Your task to perform on an android device: Open Google Chrome Image 0: 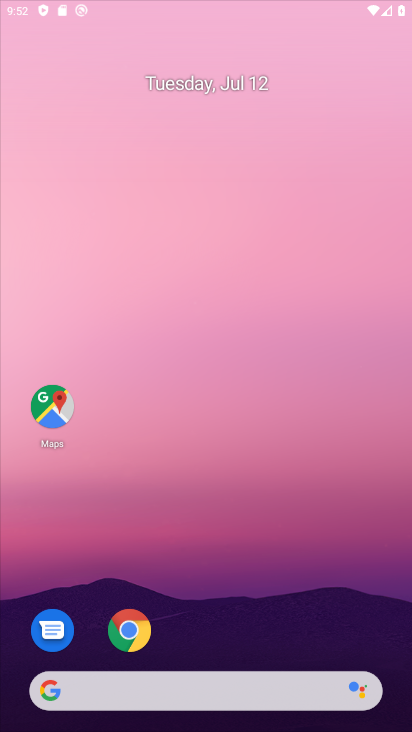
Step 0: click (232, 73)
Your task to perform on an android device: Open Google Chrome Image 1: 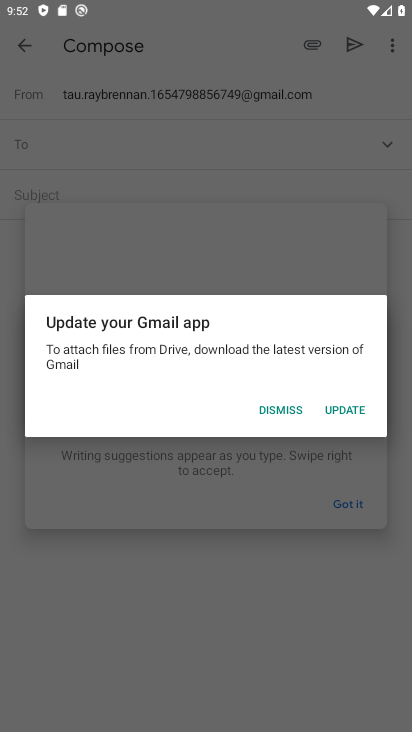
Step 1: press home button
Your task to perform on an android device: Open Google Chrome Image 2: 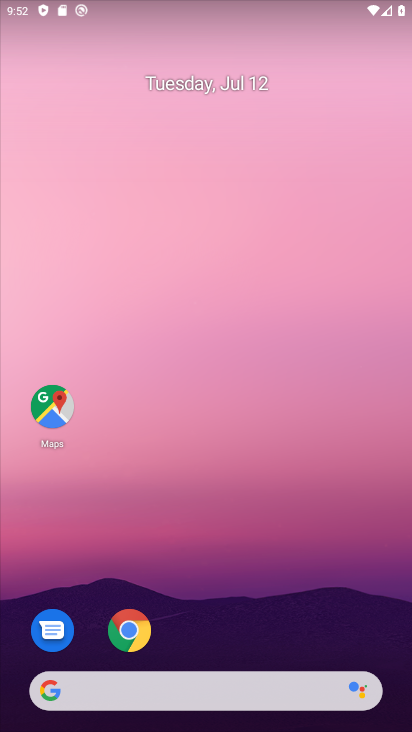
Step 2: click (141, 627)
Your task to perform on an android device: Open Google Chrome Image 3: 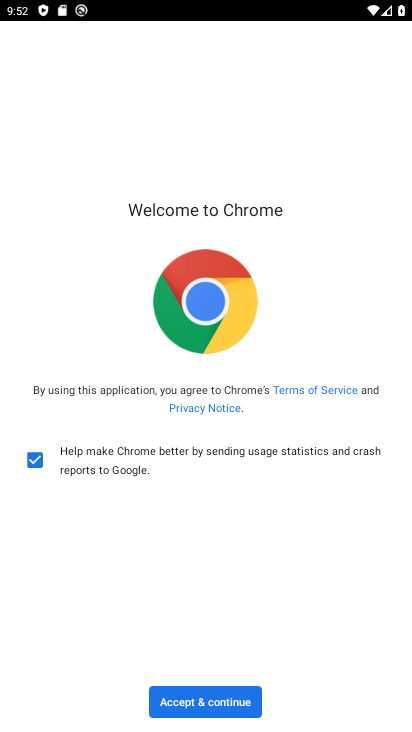
Step 3: task complete